Your task to perform on an android device: allow notifications from all sites in the chrome app Image 0: 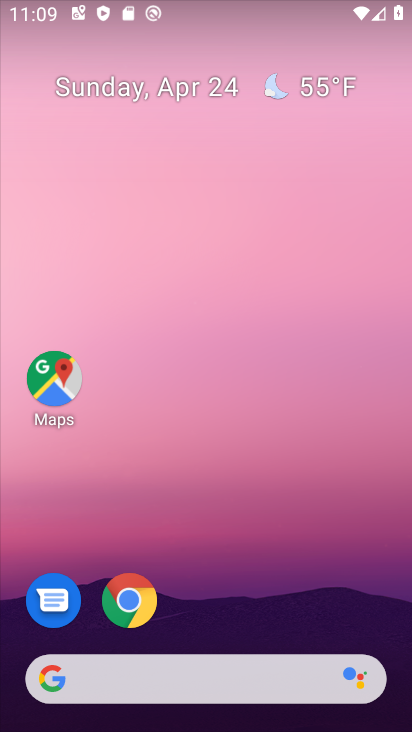
Step 0: click (134, 603)
Your task to perform on an android device: allow notifications from all sites in the chrome app Image 1: 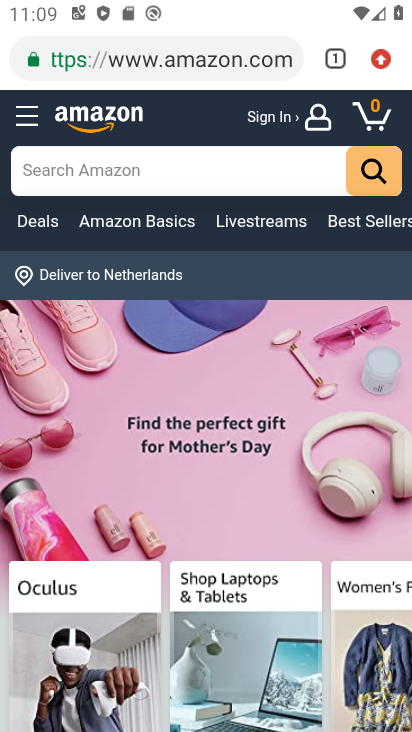
Step 1: click (390, 63)
Your task to perform on an android device: allow notifications from all sites in the chrome app Image 2: 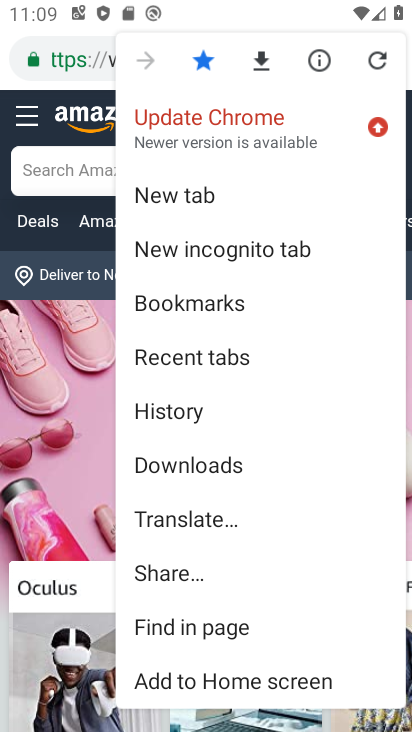
Step 2: drag from (252, 581) to (366, 163)
Your task to perform on an android device: allow notifications from all sites in the chrome app Image 3: 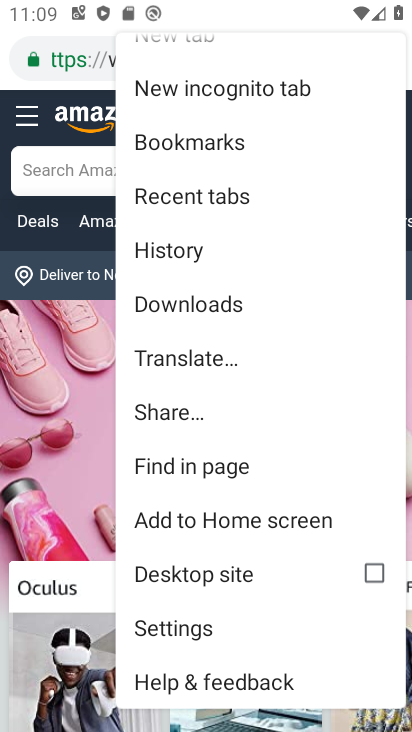
Step 3: drag from (237, 214) to (150, 692)
Your task to perform on an android device: allow notifications from all sites in the chrome app Image 4: 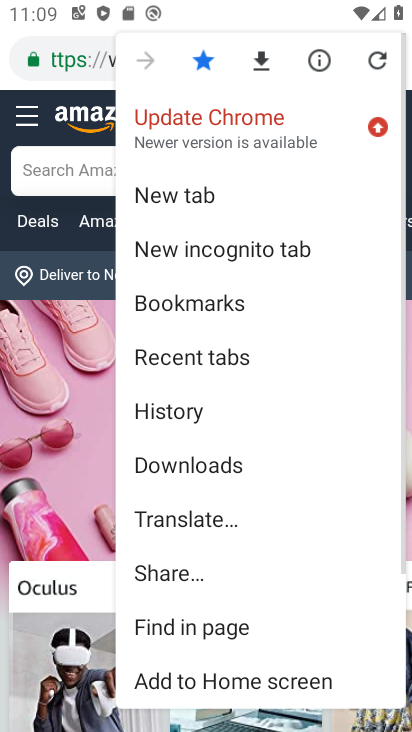
Step 4: drag from (171, 626) to (256, 232)
Your task to perform on an android device: allow notifications from all sites in the chrome app Image 5: 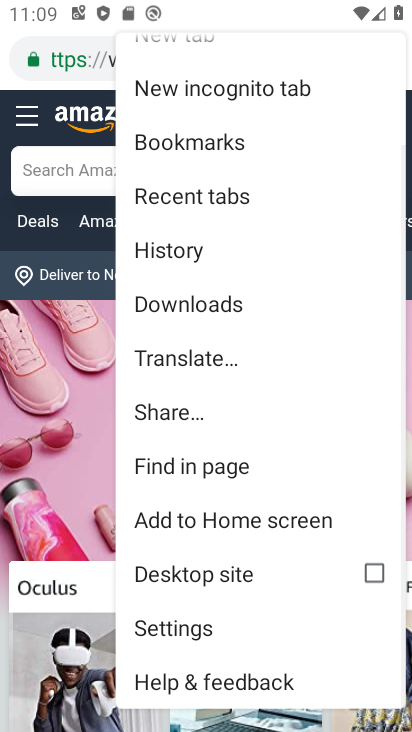
Step 5: click (193, 617)
Your task to perform on an android device: allow notifications from all sites in the chrome app Image 6: 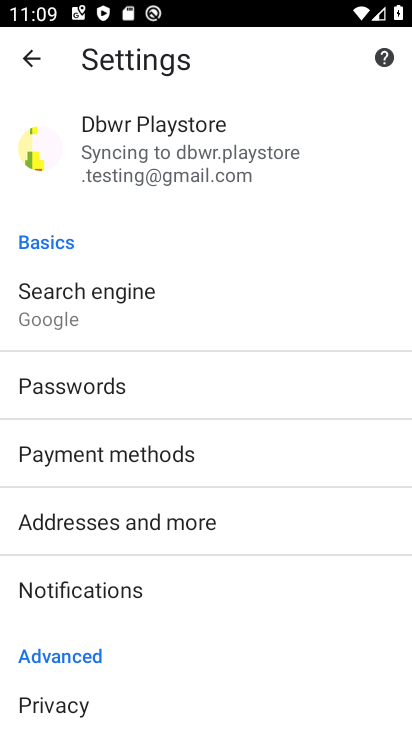
Step 6: click (104, 579)
Your task to perform on an android device: allow notifications from all sites in the chrome app Image 7: 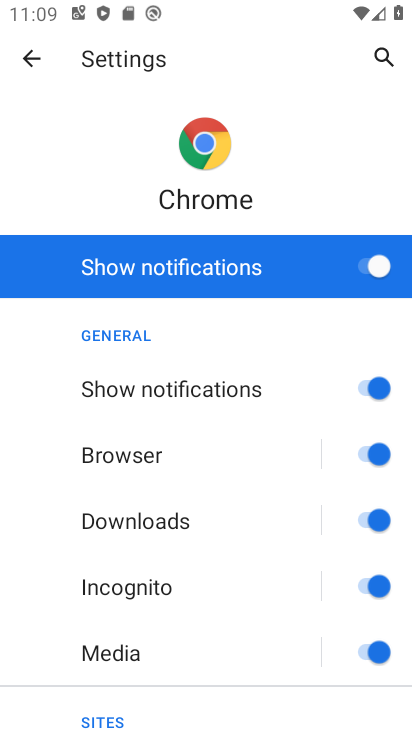
Step 7: task complete